Your task to perform on an android device: Open Google Chrome and click the shortcut for Amazon.com Image 0: 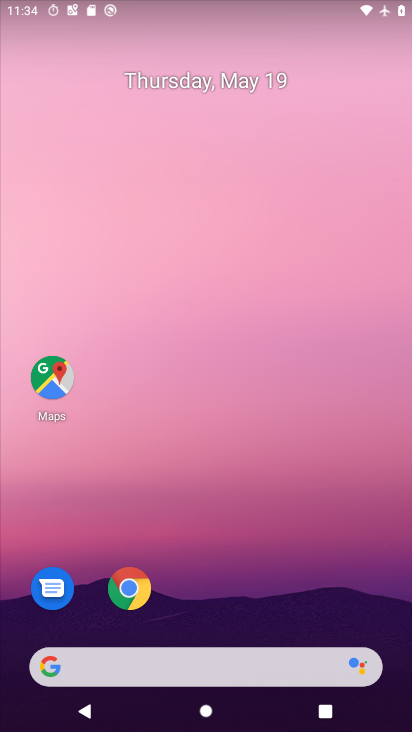
Step 0: press home button
Your task to perform on an android device: Open Google Chrome and click the shortcut for Amazon.com Image 1: 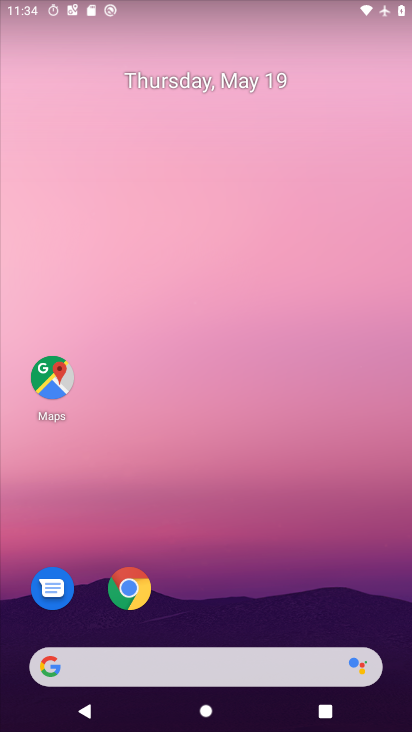
Step 1: click (130, 595)
Your task to perform on an android device: Open Google Chrome and click the shortcut for Amazon.com Image 2: 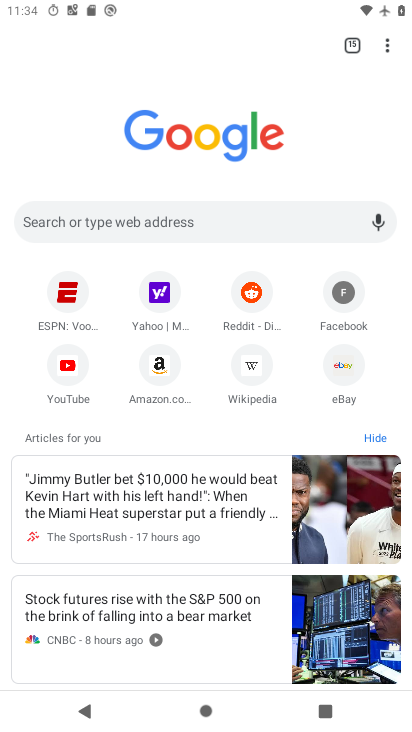
Step 2: click (154, 367)
Your task to perform on an android device: Open Google Chrome and click the shortcut for Amazon.com Image 3: 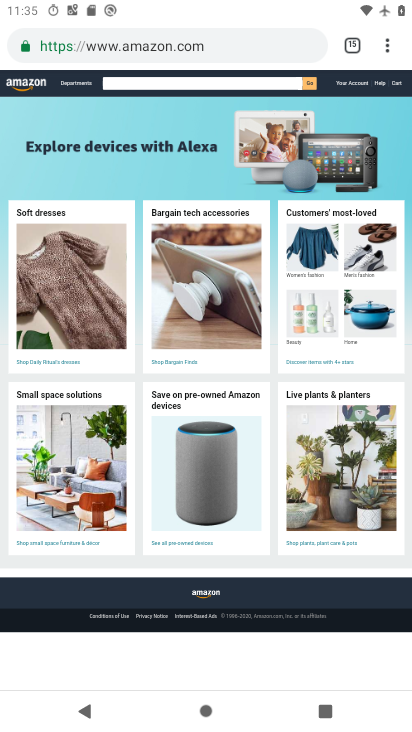
Step 3: task complete